Your task to perform on an android device: turn off airplane mode Image 0: 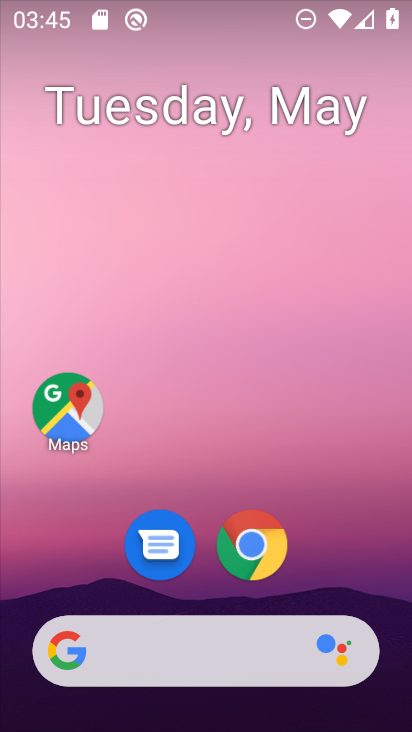
Step 0: drag from (381, 602) to (289, 110)
Your task to perform on an android device: turn off airplane mode Image 1: 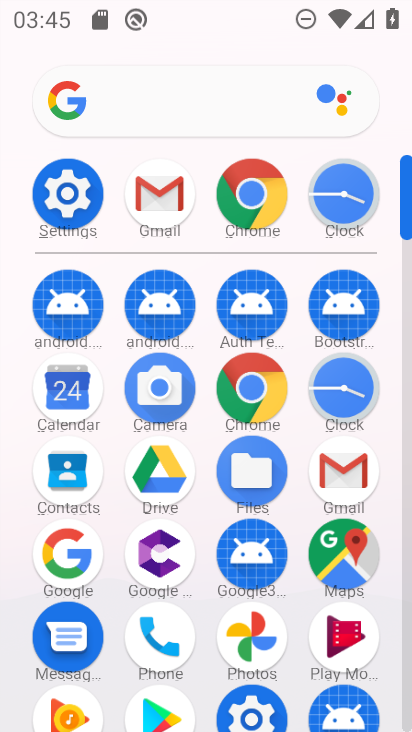
Step 1: click (409, 687)
Your task to perform on an android device: turn off airplane mode Image 2: 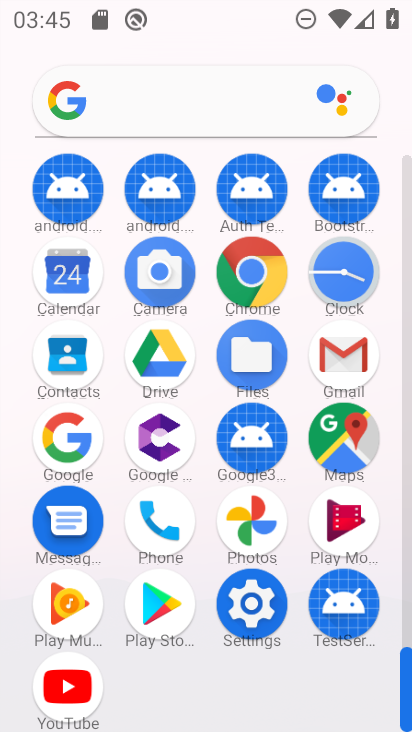
Step 2: click (244, 597)
Your task to perform on an android device: turn off airplane mode Image 3: 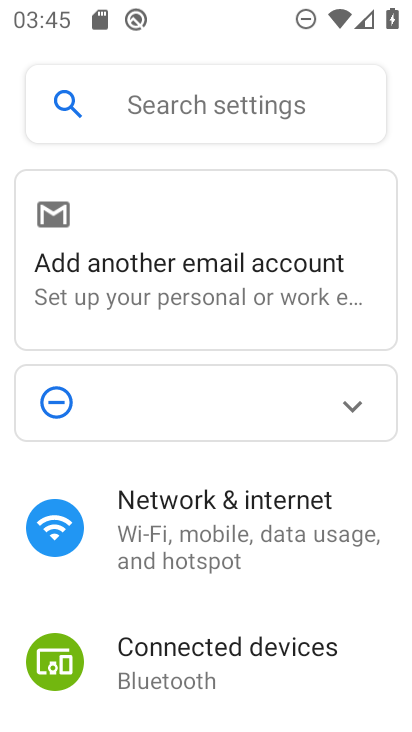
Step 3: click (177, 536)
Your task to perform on an android device: turn off airplane mode Image 4: 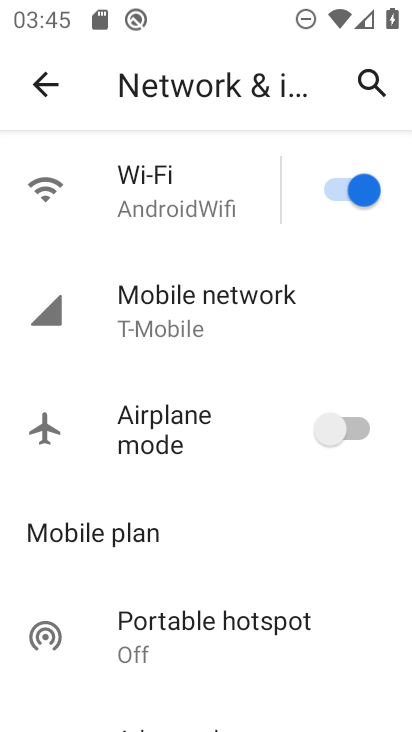
Step 4: task complete